Your task to perform on an android device: Is it going to rain this weekend? Image 0: 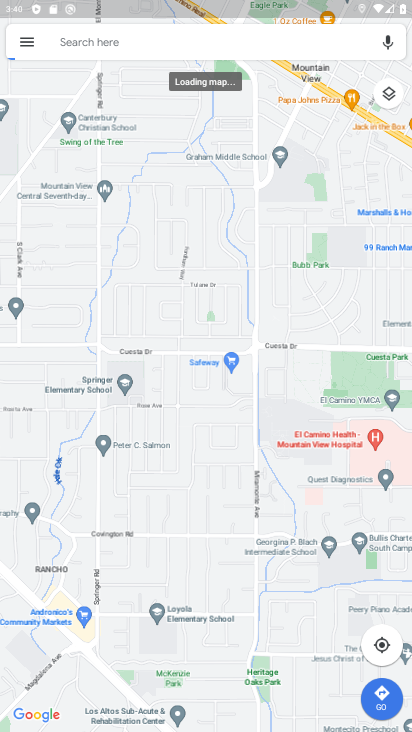
Step 0: press back button
Your task to perform on an android device: Is it going to rain this weekend? Image 1: 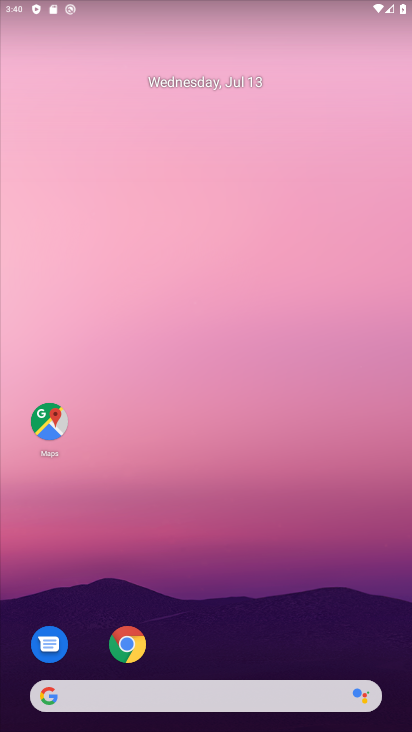
Step 1: drag from (202, 626) to (261, 10)
Your task to perform on an android device: Is it going to rain this weekend? Image 2: 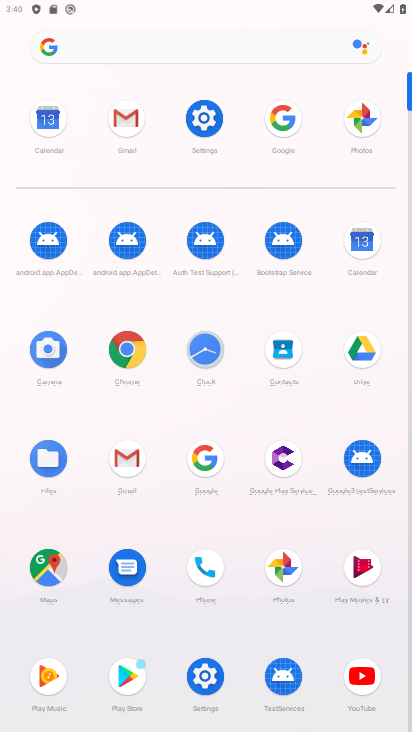
Step 2: click (130, 39)
Your task to perform on an android device: Is it going to rain this weekend? Image 3: 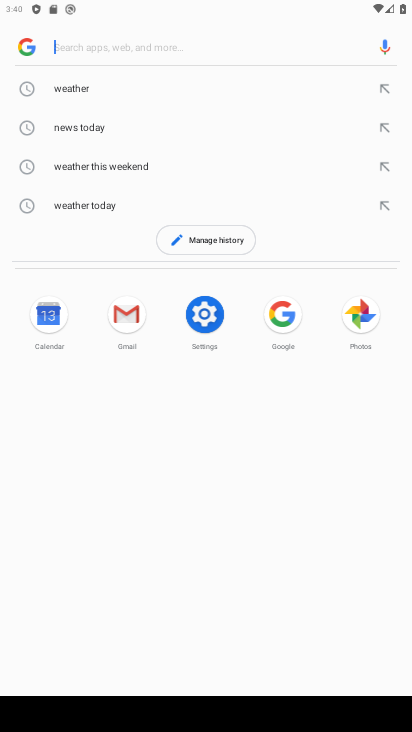
Step 3: click (103, 86)
Your task to perform on an android device: Is it going to rain this weekend? Image 4: 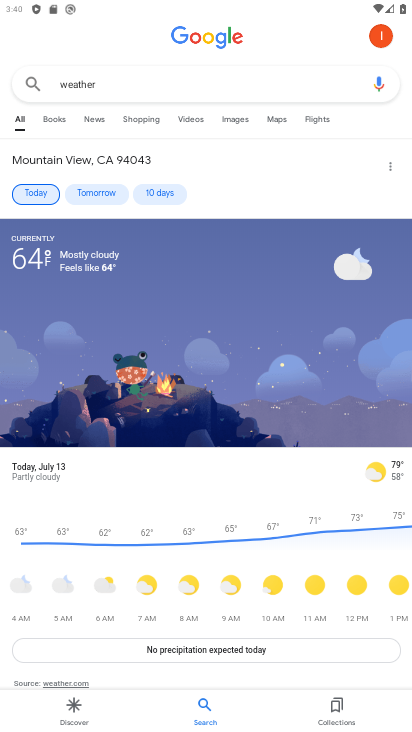
Step 4: click (147, 197)
Your task to perform on an android device: Is it going to rain this weekend? Image 5: 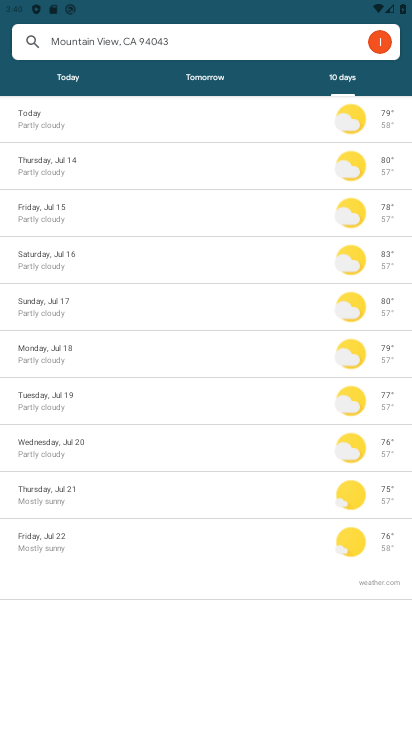
Step 5: task complete